Your task to perform on an android device: change the clock style Image 0: 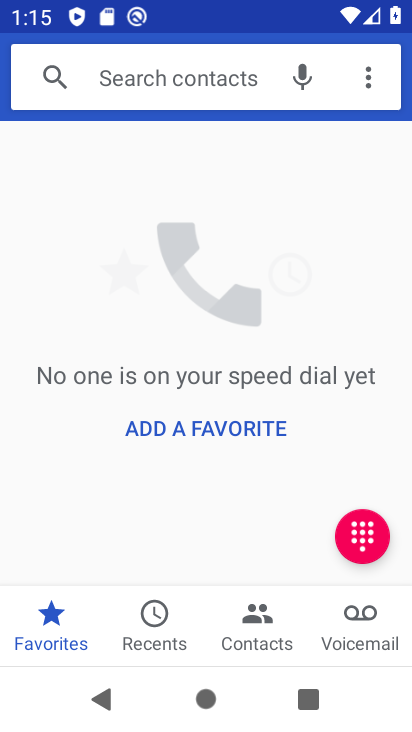
Step 0: press home button
Your task to perform on an android device: change the clock style Image 1: 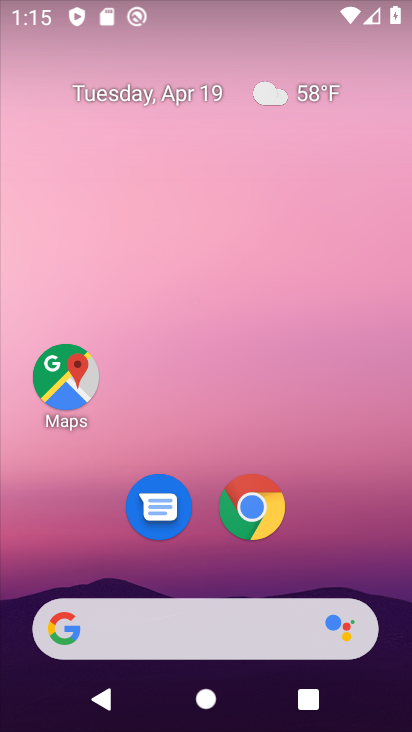
Step 1: drag from (204, 551) to (187, 208)
Your task to perform on an android device: change the clock style Image 2: 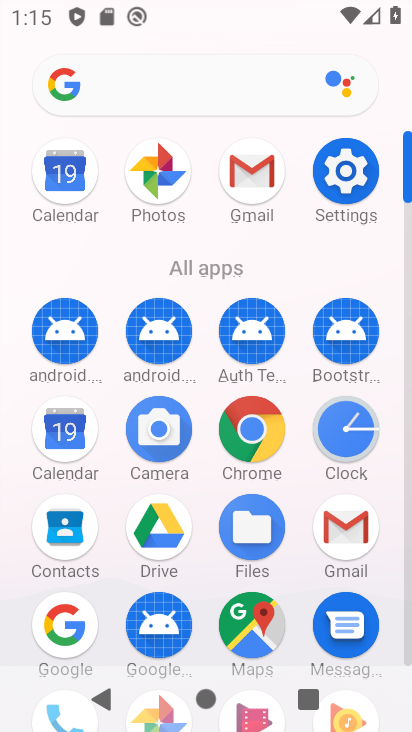
Step 2: click (344, 429)
Your task to perform on an android device: change the clock style Image 3: 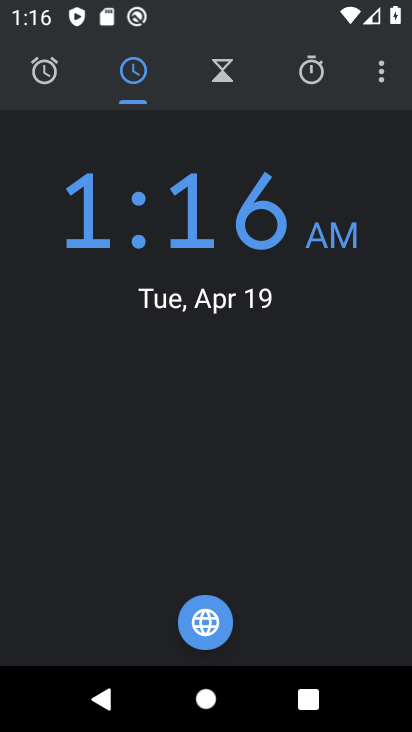
Step 3: click (373, 63)
Your task to perform on an android device: change the clock style Image 4: 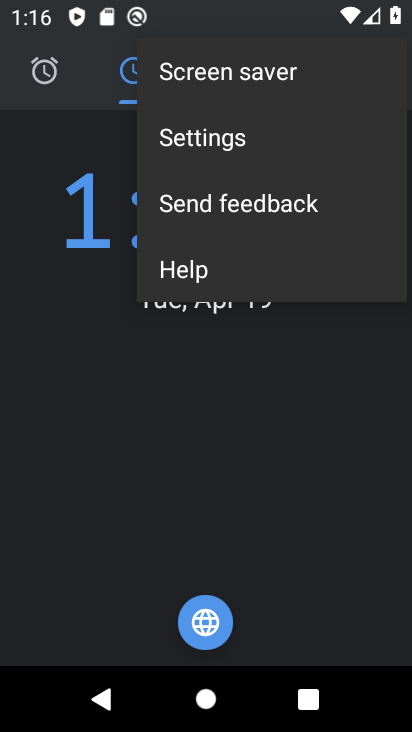
Step 4: click (258, 140)
Your task to perform on an android device: change the clock style Image 5: 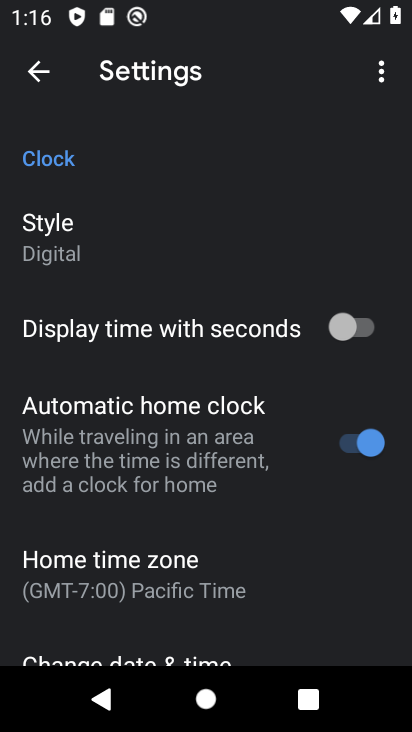
Step 5: drag from (166, 270) to (185, 387)
Your task to perform on an android device: change the clock style Image 6: 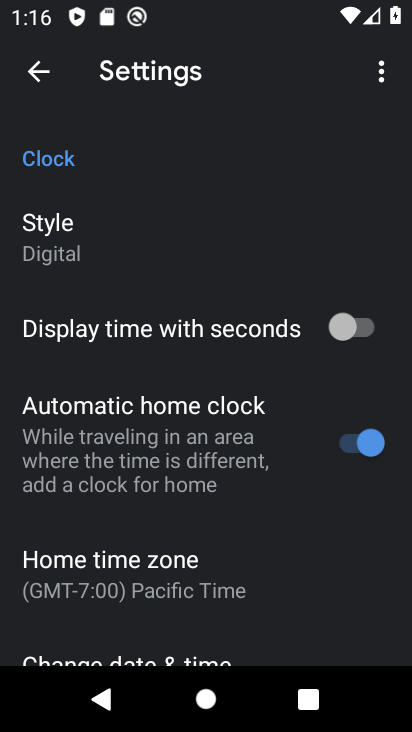
Step 6: drag from (165, 445) to (206, 490)
Your task to perform on an android device: change the clock style Image 7: 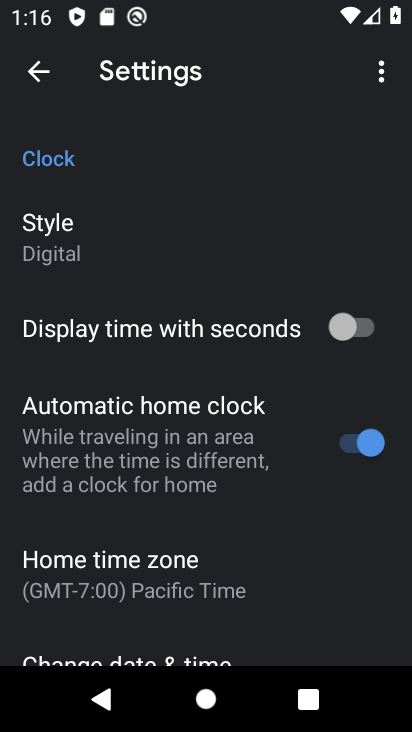
Step 7: click (93, 228)
Your task to perform on an android device: change the clock style Image 8: 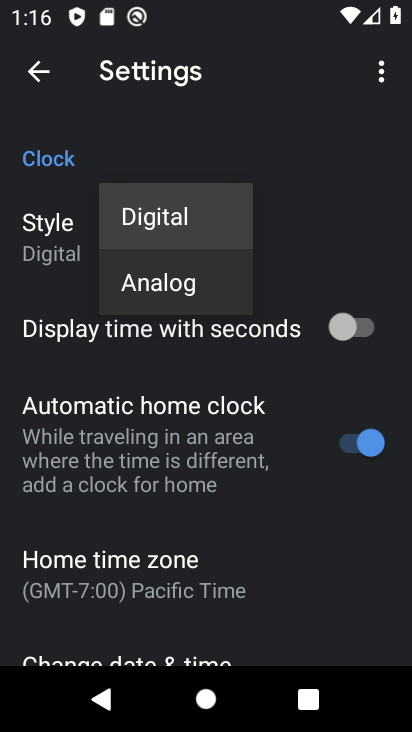
Step 8: click (178, 288)
Your task to perform on an android device: change the clock style Image 9: 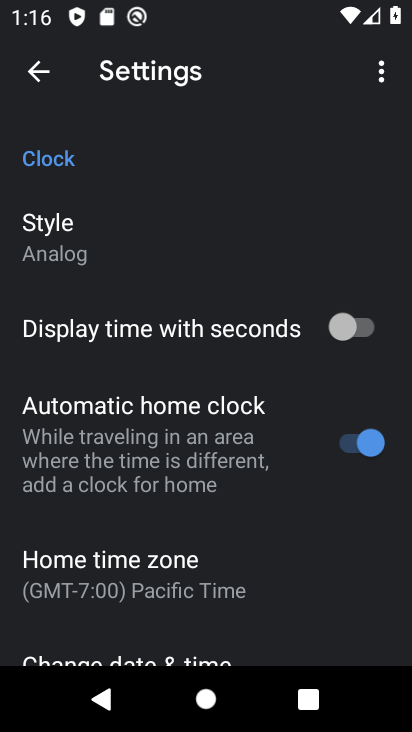
Step 9: task complete